Your task to perform on an android device: toggle show notifications on the lock screen Image 0: 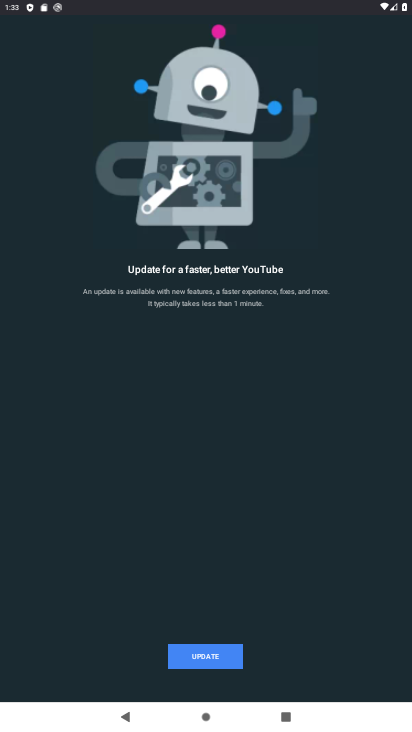
Step 0: press home button
Your task to perform on an android device: toggle show notifications on the lock screen Image 1: 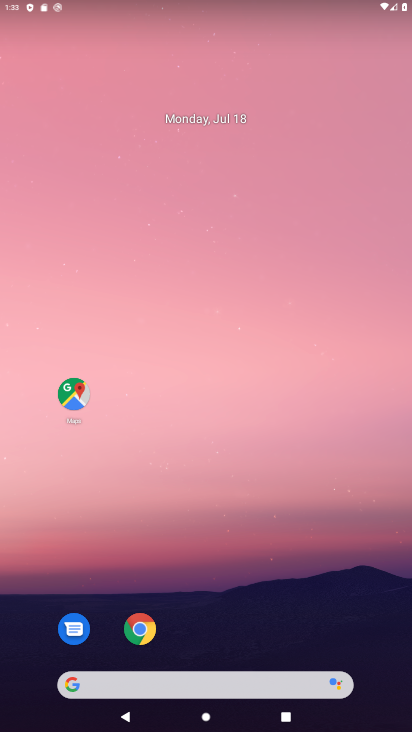
Step 1: drag from (203, 679) to (193, 180)
Your task to perform on an android device: toggle show notifications on the lock screen Image 2: 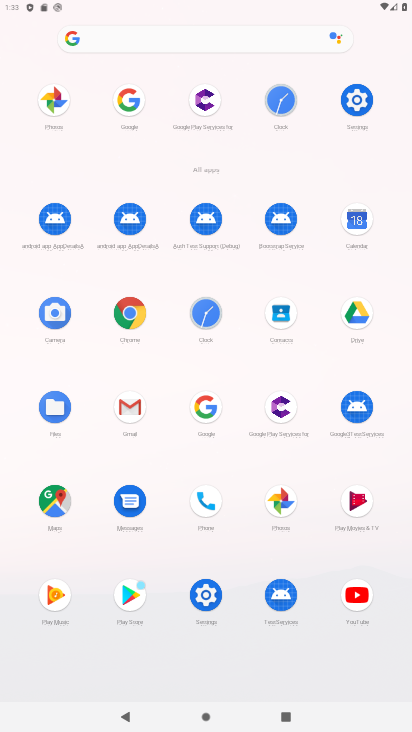
Step 2: click (358, 98)
Your task to perform on an android device: toggle show notifications on the lock screen Image 3: 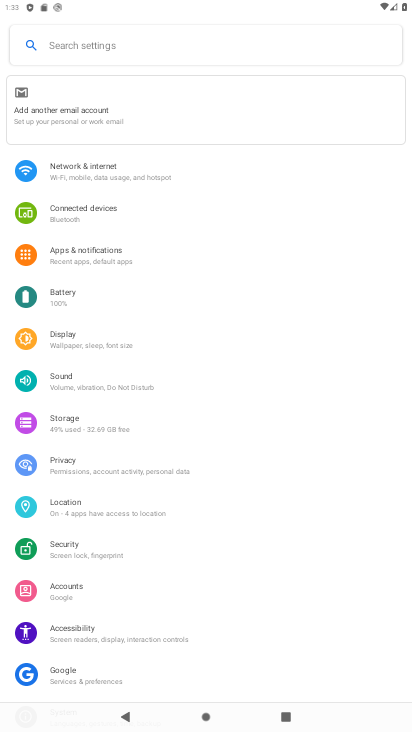
Step 3: click (74, 463)
Your task to perform on an android device: toggle show notifications on the lock screen Image 4: 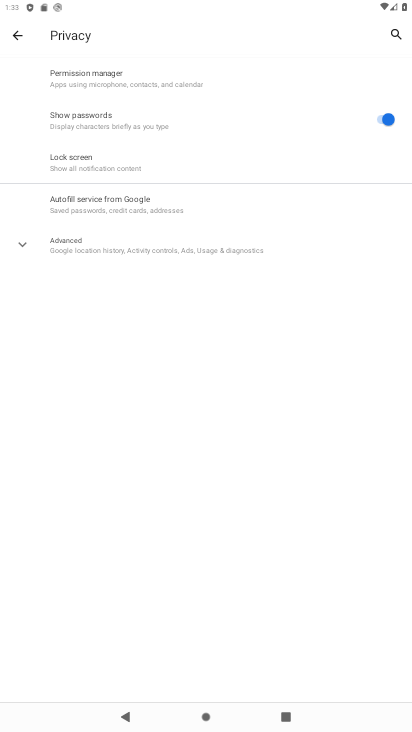
Step 4: click (84, 244)
Your task to perform on an android device: toggle show notifications on the lock screen Image 5: 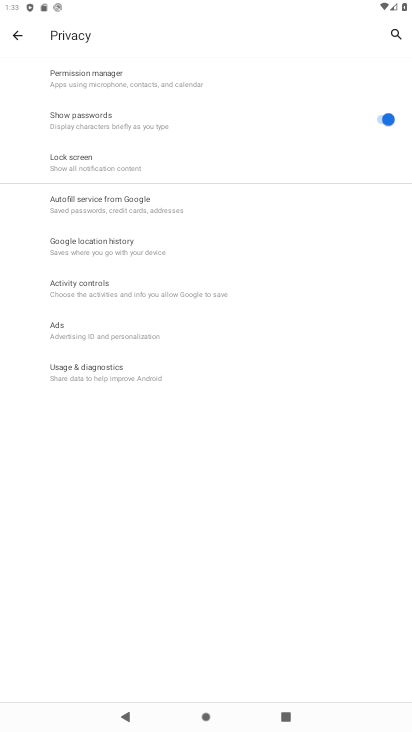
Step 5: click (57, 163)
Your task to perform on an android device: toggle show notifications on the lock screen Image 6: 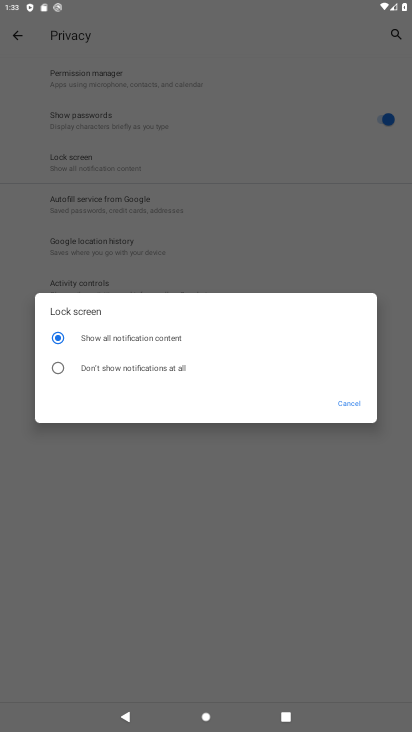
Step 6: click (118, 366)
Your task to perform on an android device: toggle show notifications on the lock screen Image 7: 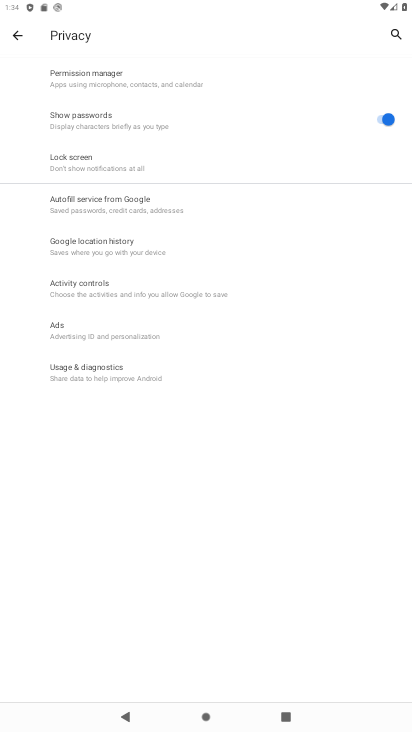
Step 7: task complete